Your task to perform on an android device: Open notification settings Image 0: 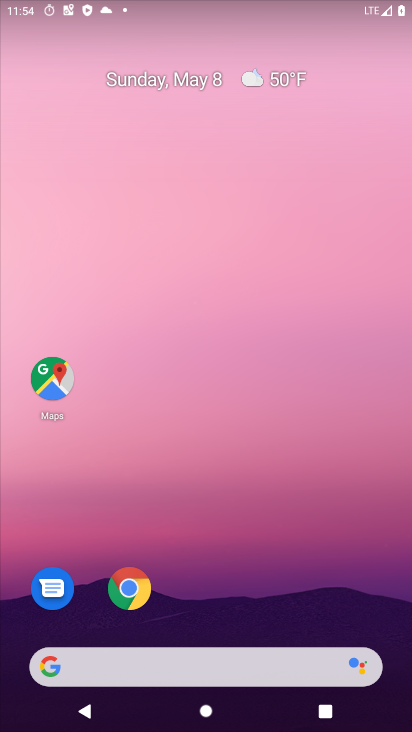
Step 0: drag from (236, 553) to (240, 97)
Your task to perform on an android device: Open notification settings Image 1: 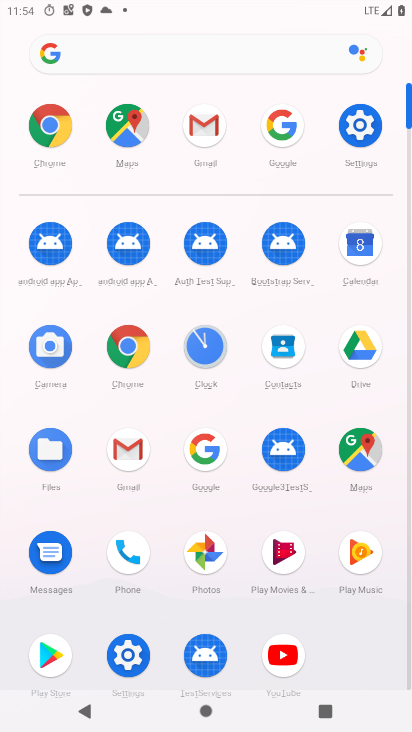
Step 1: click (358, 133)
Your task to perform on an android device: Open notification settings Image 2: 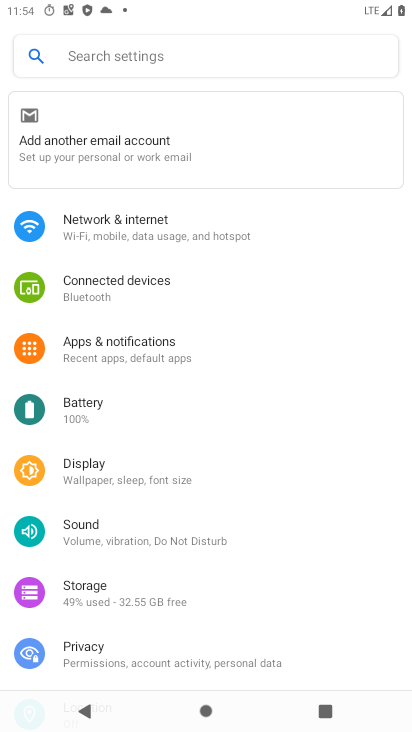
Step 2: click (150, 328)
Your task to perform on an android device: Open notification settings Image 3: 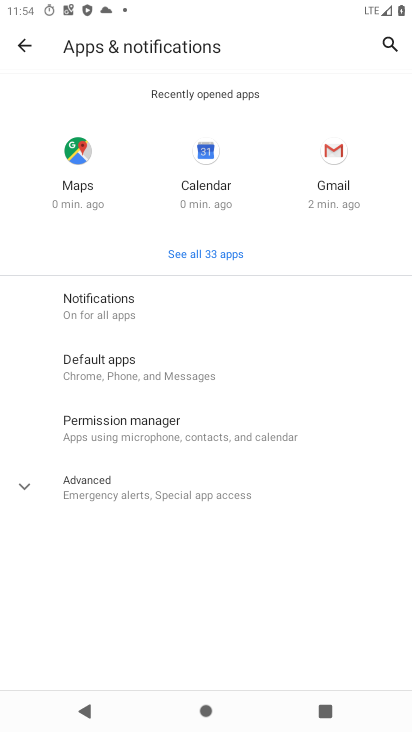
Step 3: task complete